Your task to perform on an android device: open the mobile data screen to see how much data has been used Image 0: 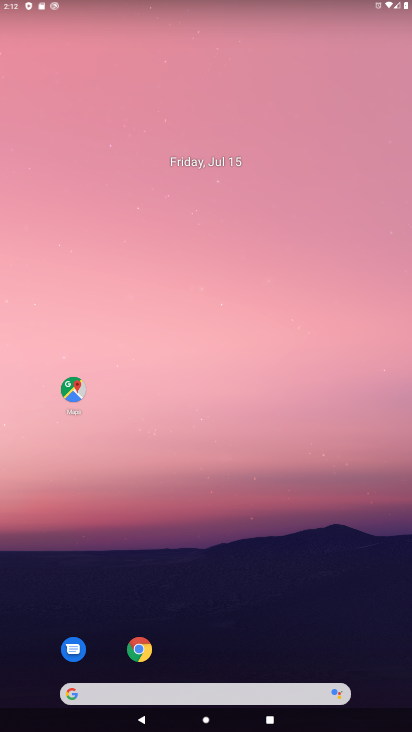
Step 0: drag from (262, 6) to (231, 589)
Your task to perform on an android device: open the mobile data screen to see how much data has been used Image 1: 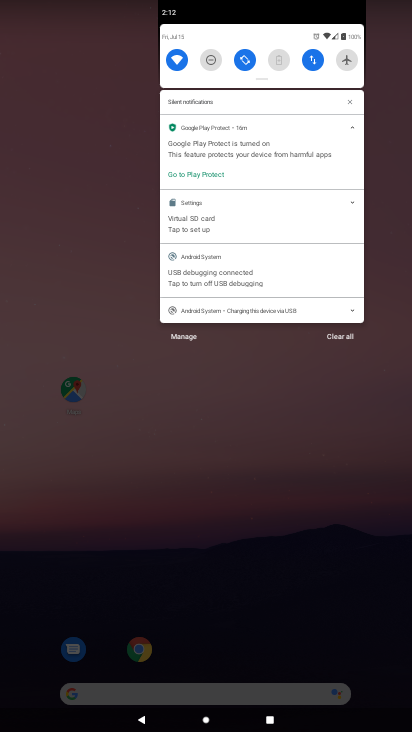
Step 1: click (316, 51)
Your task to perform on an android device: open the mobile data screen to see how much data has been used Image 2: 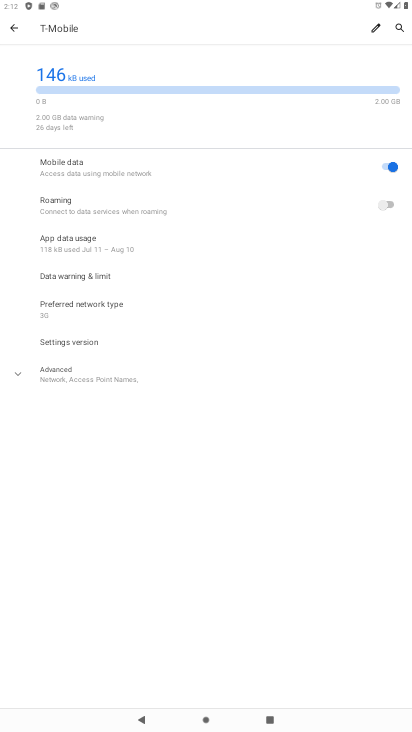
Step 2: task complete